Your task to perform on an android device: delete a single message in the gmail app Image 0: 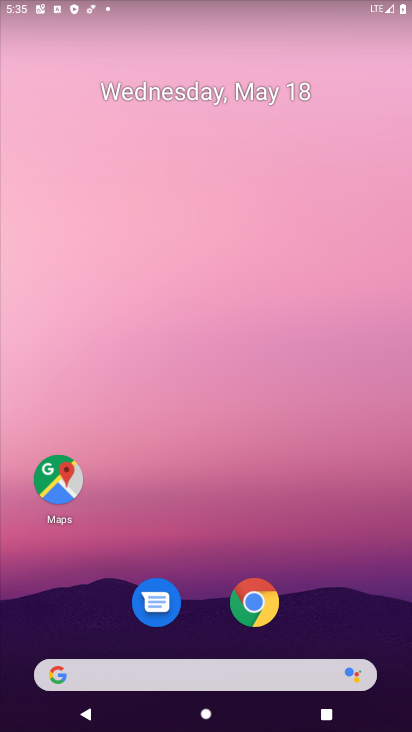
Step 0: drag from (276, 659) to (241, 17)
Your task to perform on an android device: delete a single message in the gmail app Image 1: 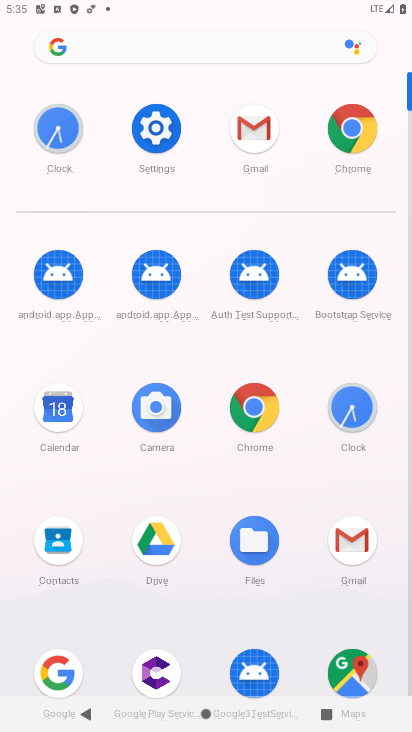
Step 1: click (345, 554)
Your task to perform on an android device: delete a single message in the gmail app Image 2: 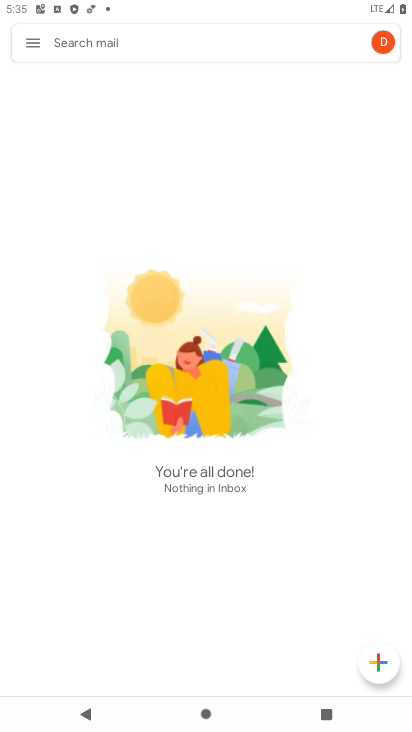
Step 2: click (29, 44)
Your task to perform on an android device: delete a single message in the gmail app Image 3: 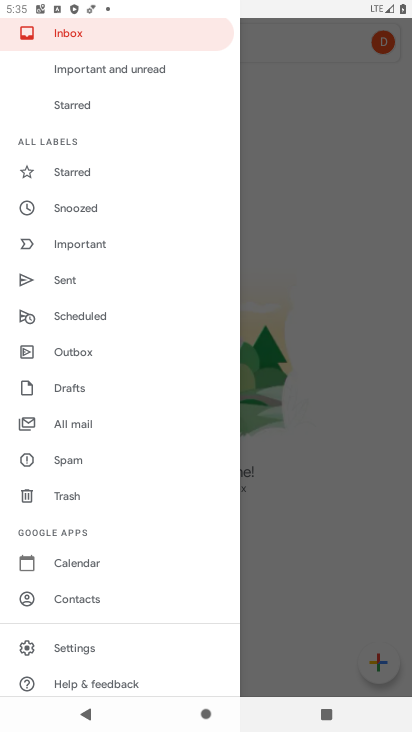
Step 3: click (91, 42)
Your task to perform on an android device: delete a single message in the gmail app Image 4: 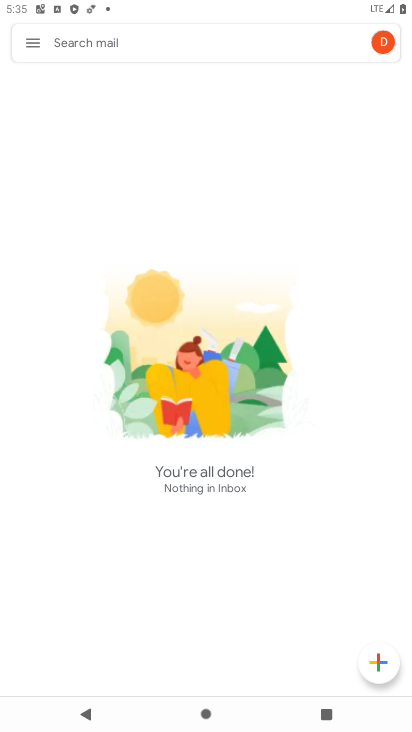
Step 4: task complete